Your task to perform on an android device: empty trash in the gmail app Image 0: 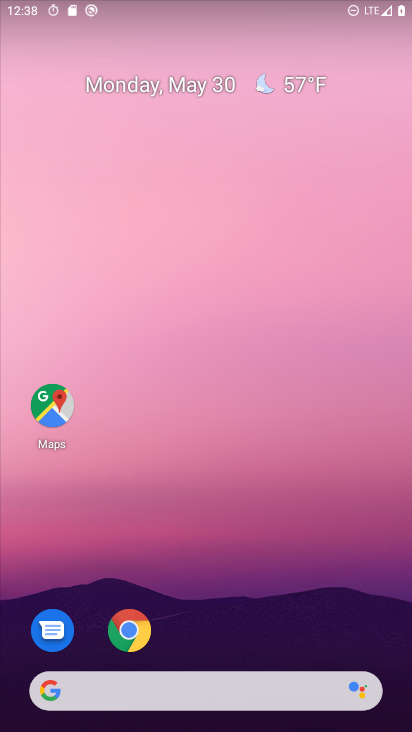
Step 0: press home button
Your task to perform on an android device: empty trash in the gmail app Image 1: 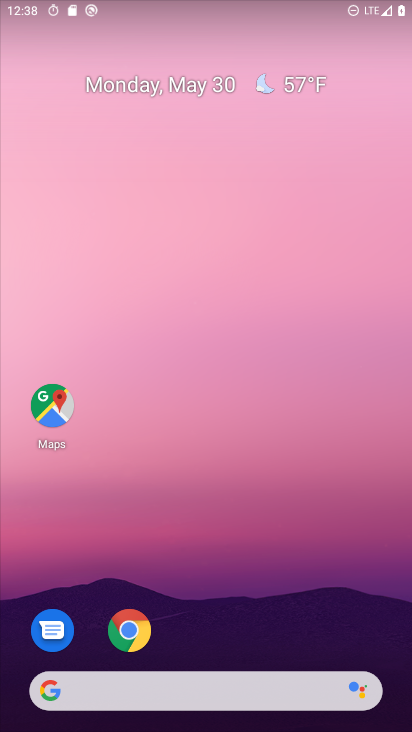
Step 1: drag from (267, 711) to (184, 223)
Your task to perform on an android device: empty trash in the gmail app Image 2: 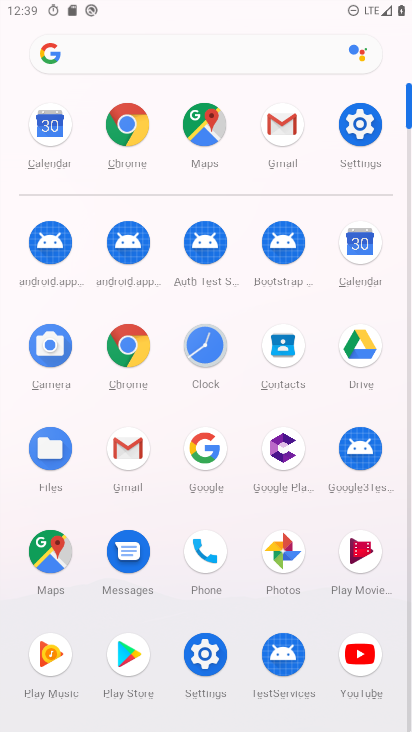
Step 2: click (145, 454)
Your task to perform on an android device: empty trash in the gmail app Image 3: 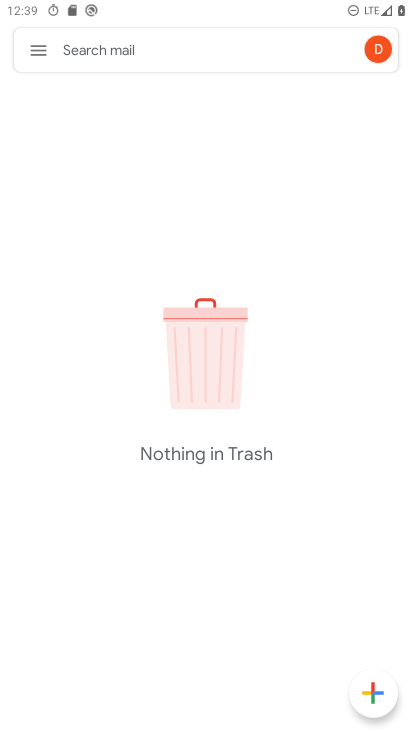
Step 3: click (37, 60)
Your task to perform on an android device: empty trash in the gmail app Image 4: 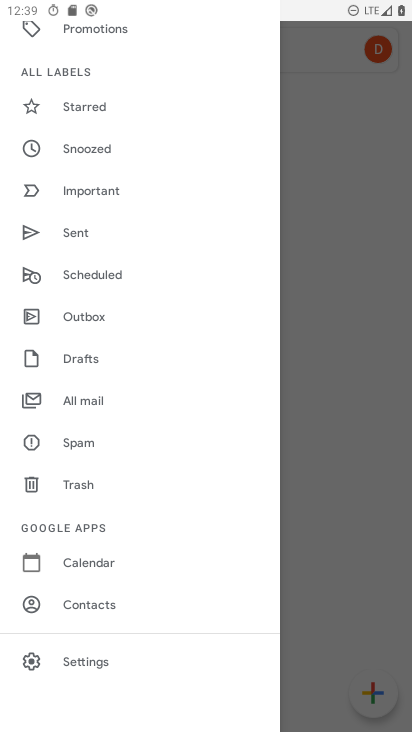
Step 4: click (93, 477)
Your task to perform on an android device: empty trash in the gmail app Image 5: 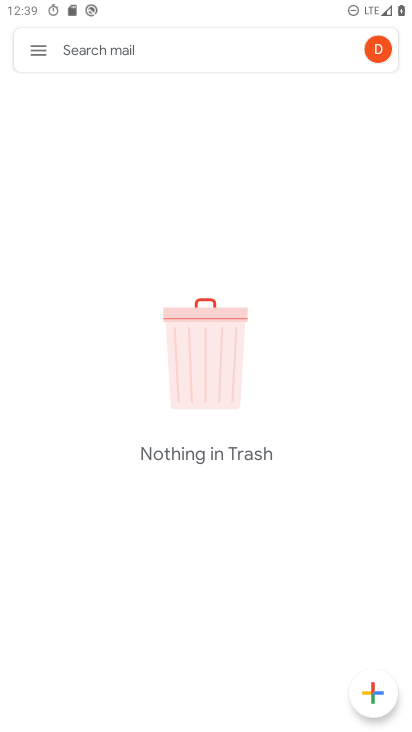
Step 5: task complete